Your task to perform on an android device: When is my next appointment? Image 0: 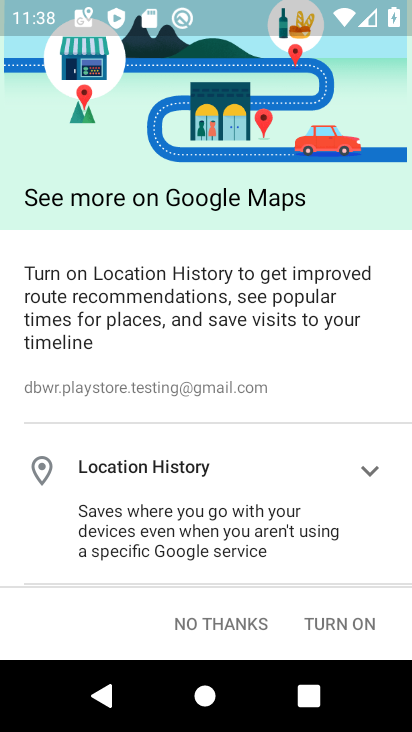
Step 0: press home button
Your task to perform on an android device: When is my next appointment? Image 1: 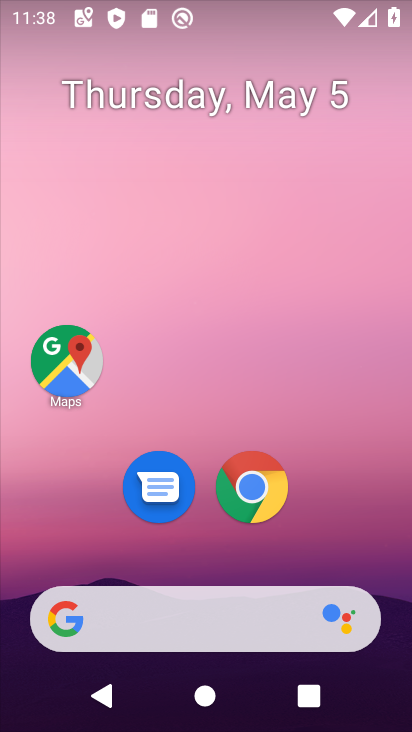
Step 1: drag from (349, 521) to (322, 43)
Your task to perform on an android device: When is my next appointment? Image 2: 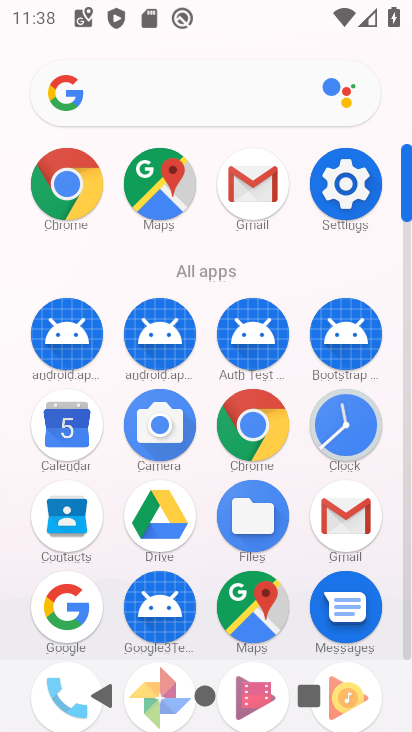
Step 2: click (77, 421)
Your task to perform on an android device: When is my next appointment? Image 3: 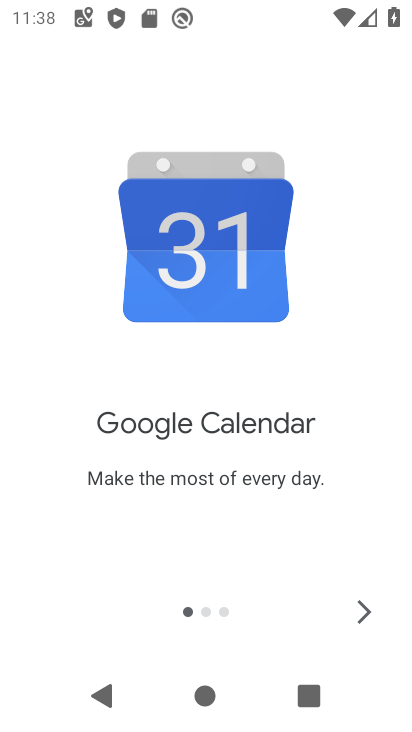
Step 3: press home button
Your task to perform on an android device: When is my next appointment? Image 4: 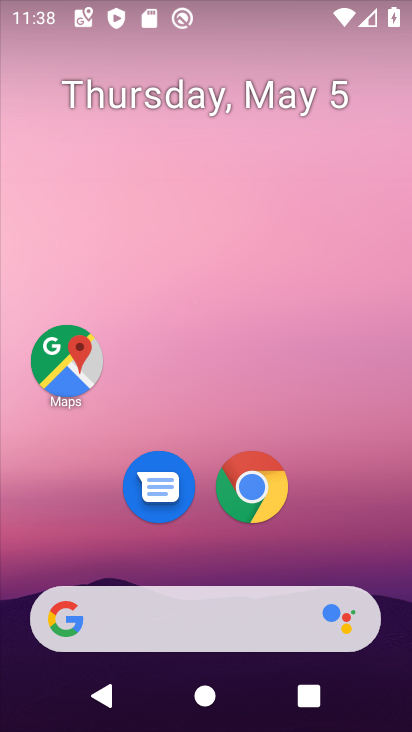
Step 4: drag from (276, 551) to (227, 144)
Your task to perform on an android device: When is my next appointment? Image 5: 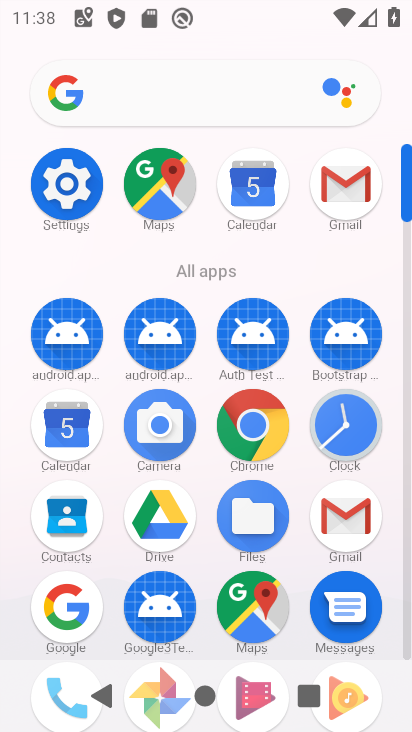
Step 5: click (91, 430)
Your task to perform on an android device: When is my next appointment? Image 6: 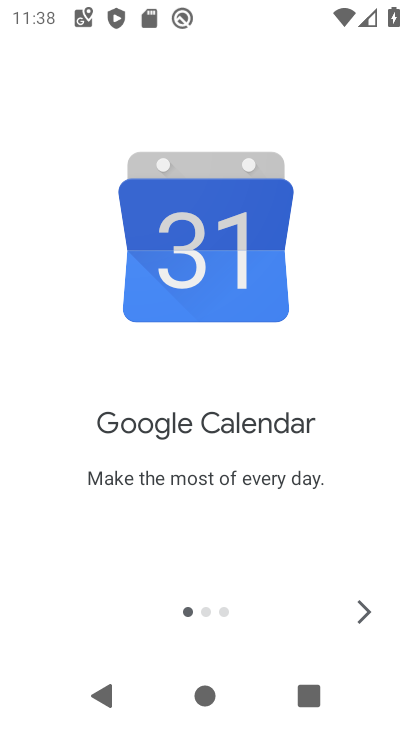
Step 6: click (379, 616)
Your task to perform on an android device: When is my next appointment? Image 7: 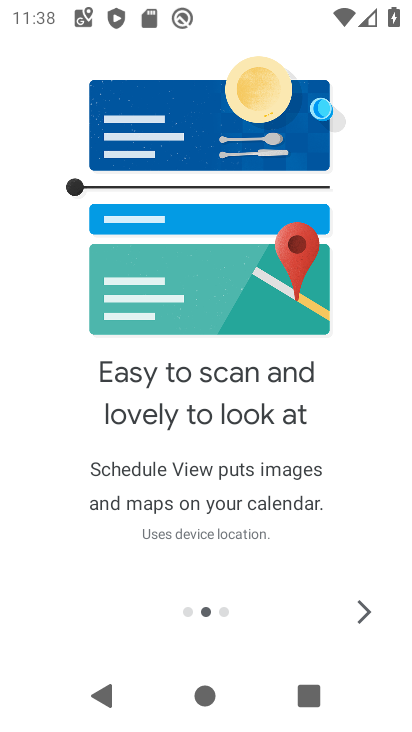
Step 7: click (379, 616)
Your task to perform on an android device: When is my next appointment? Image 8: 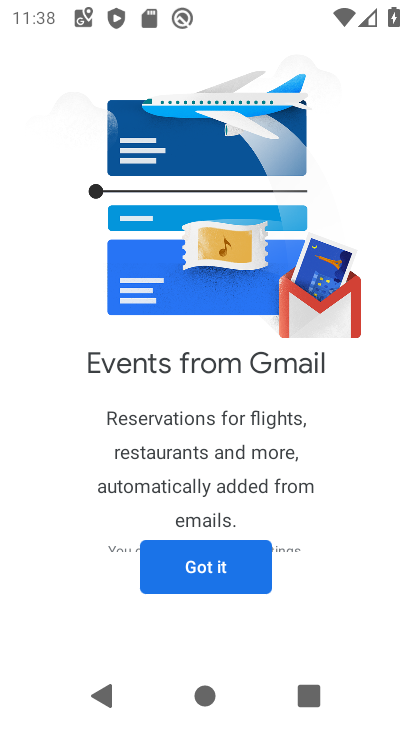
Step 8: click (247, 575)
Your task to perform on an android device: When is my next appointment? Image 9: 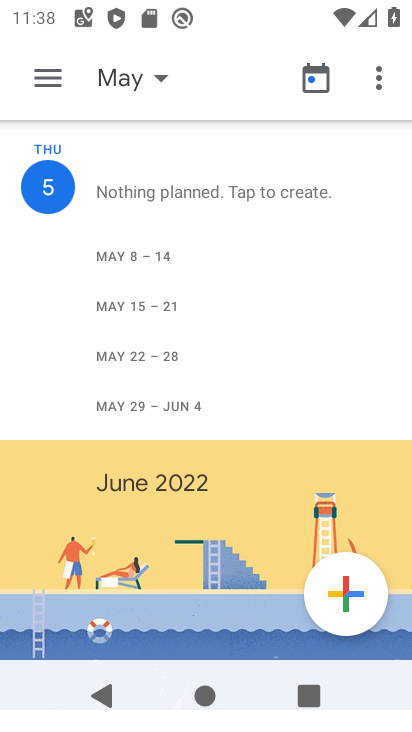
Step 9: click (49, 84)
Your task to perform on an android device: When is my next appointment? Image 10: 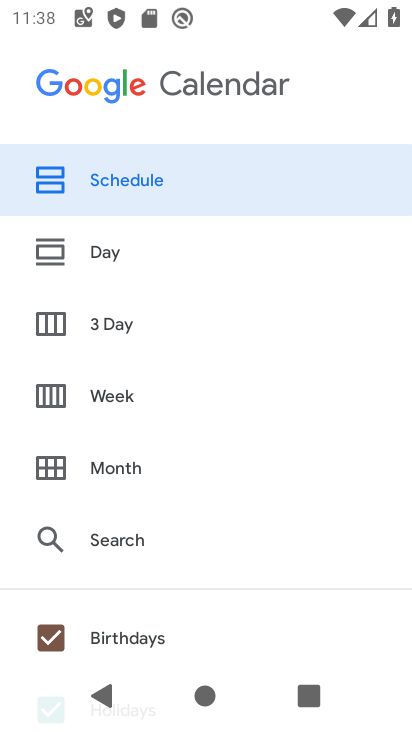
Step 10: click (93, 312)
Your task to perform on an android device: When is my next appointment? Image 11: 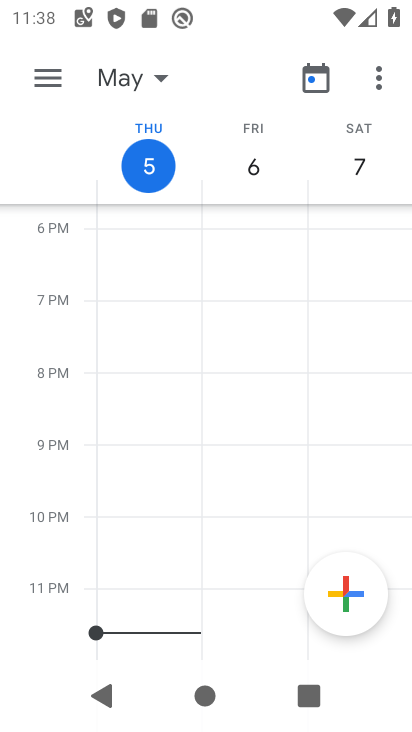
Step 11: task complete